Your task to perform on an android device: open app "Facebook Messenger" Image 0: 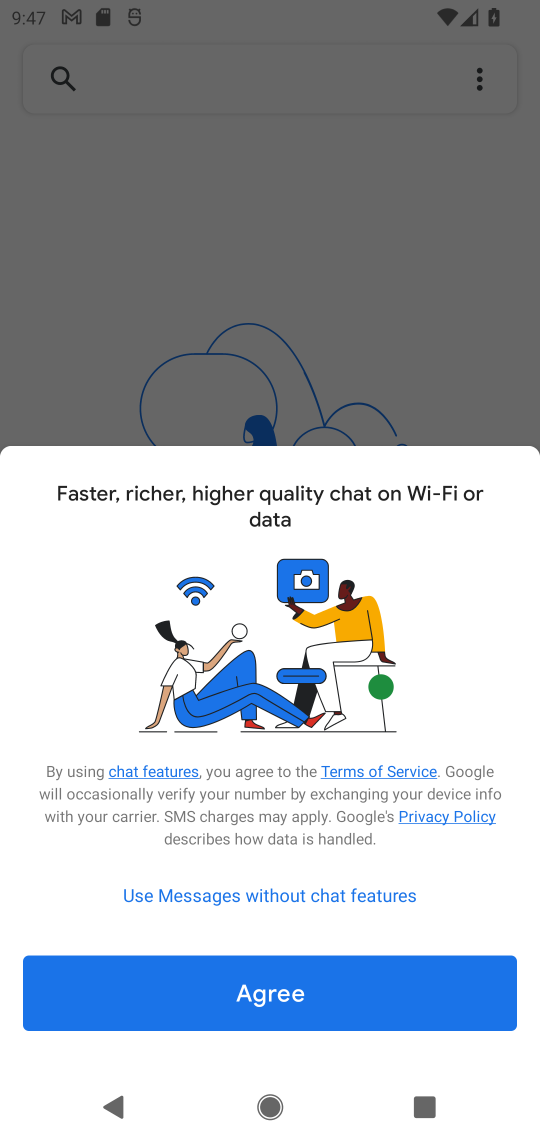
Step 0: press home button
Your task to perform on an android device: open app "Facebook Messenger" Image 1: 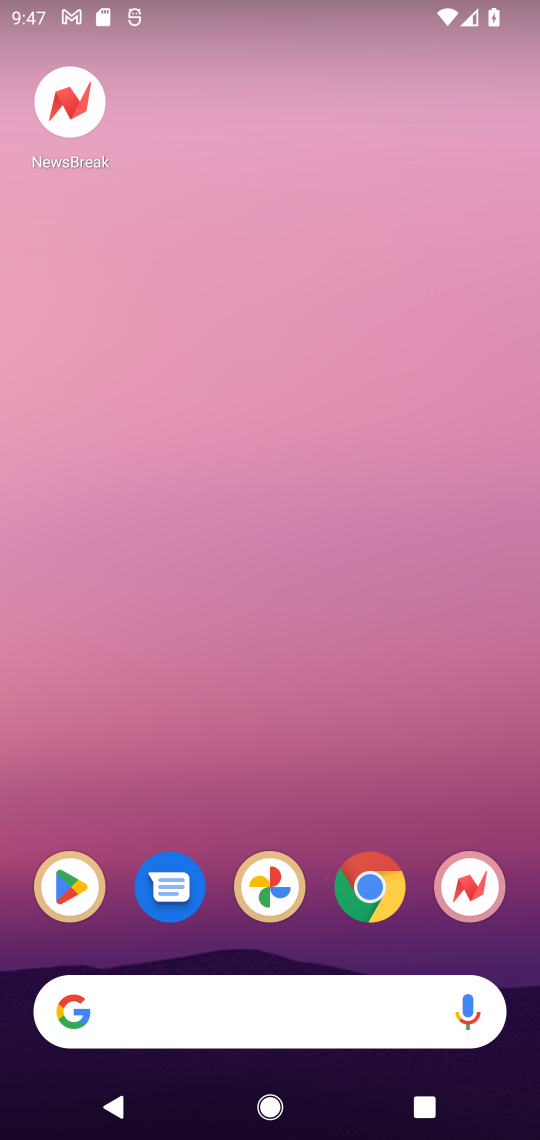
Step 1: click (85, 894)
Your task to perform on an android device: open app "Facebook Messenger" Image 2: 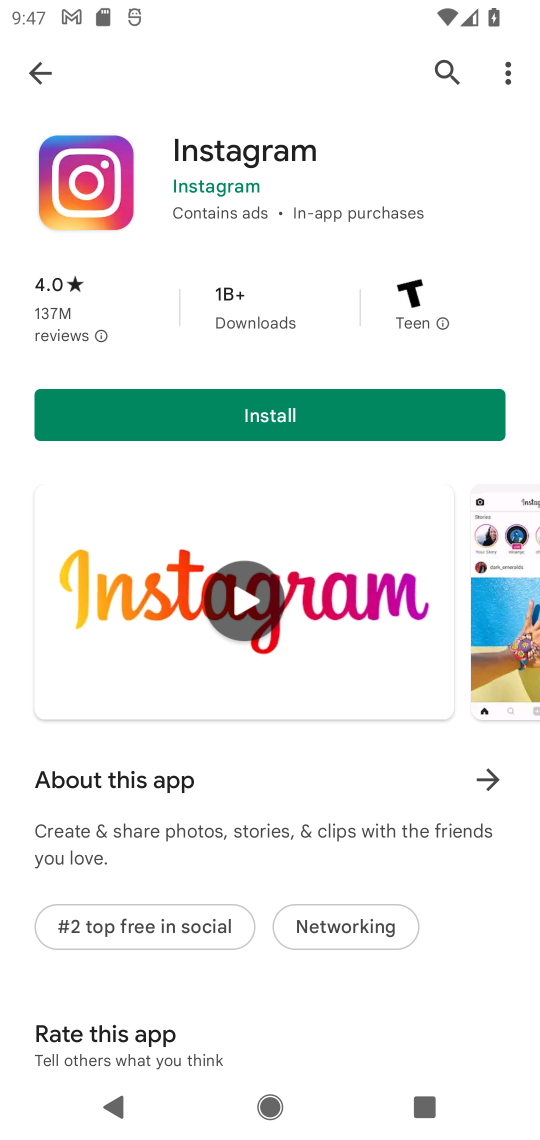
Step 2: click (445, 65)
Your task to perform on an android device: open app "Facebook Messenger" Image 3: 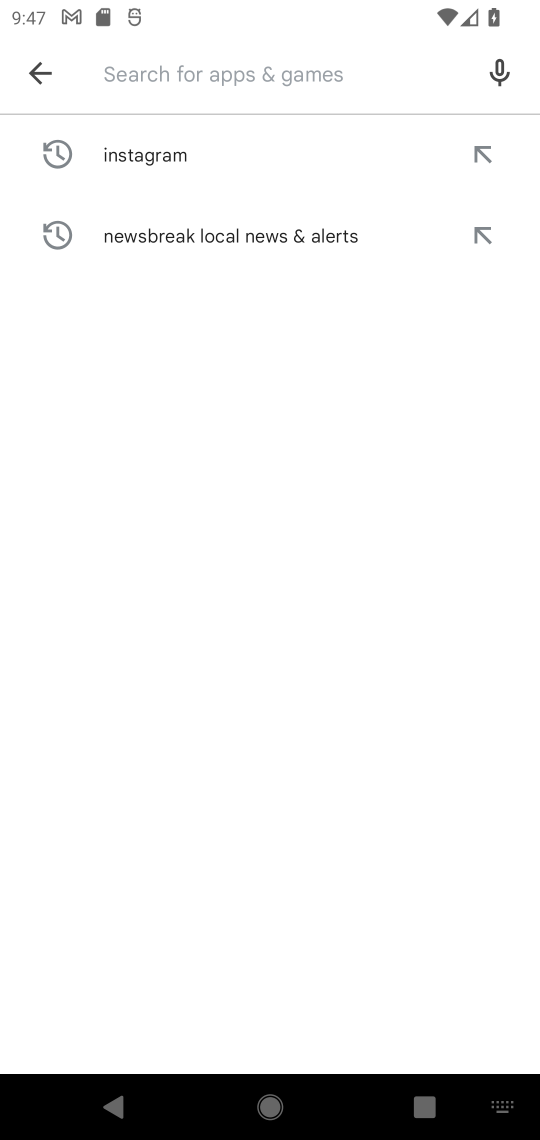
Step 3: type "Facebook Messenger"
Your task to perform on an android device: open app "Facebook Messenger" Image 4: 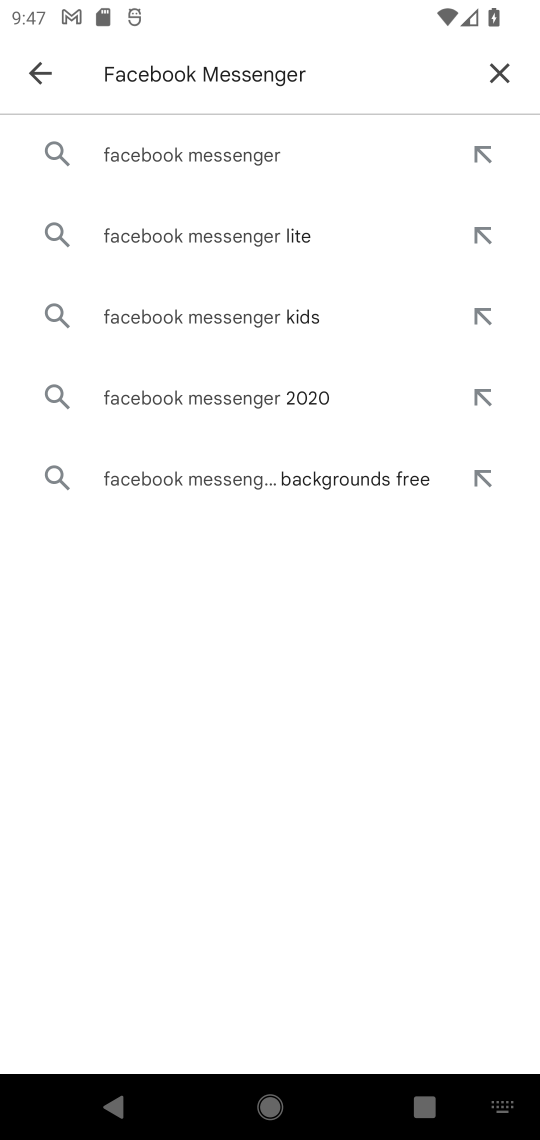
Step 4: click (263, 165)
Your task to perform on an android device: open app "Facebook Messenger" Image 5: 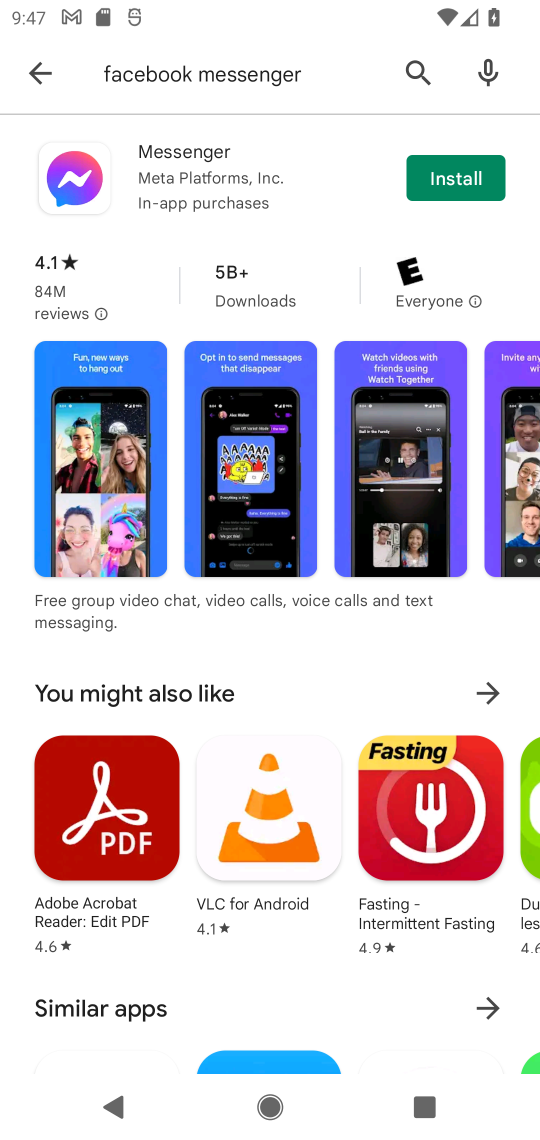
Step 5: click (305, 173)
Your task to perform on an android device: open app "Facebook Messenger" Image 6: 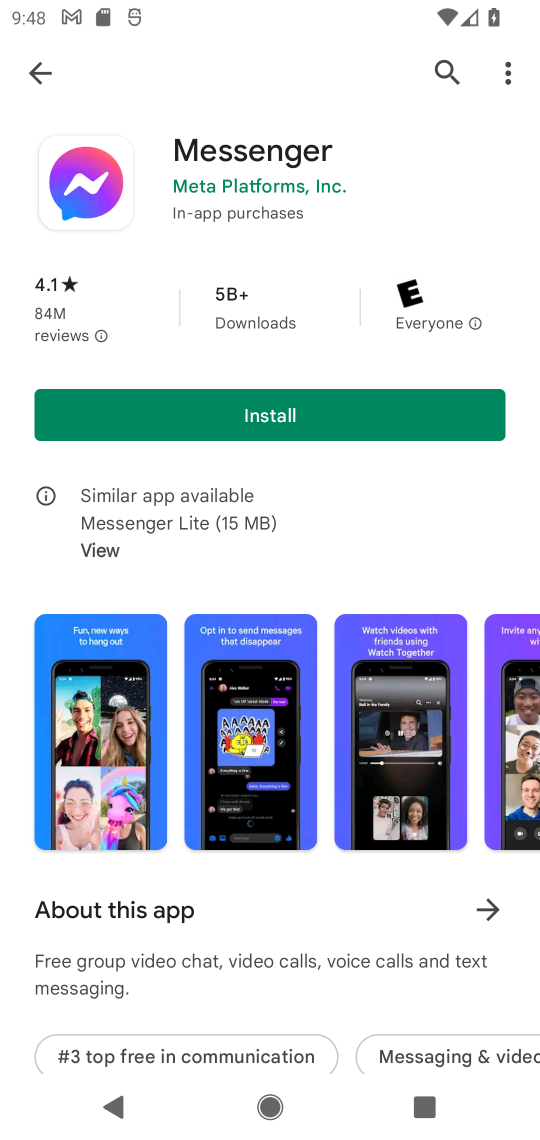
Step 6: task complete